Your task to perform on an android device: allow cookies in the chrome app Image 0: 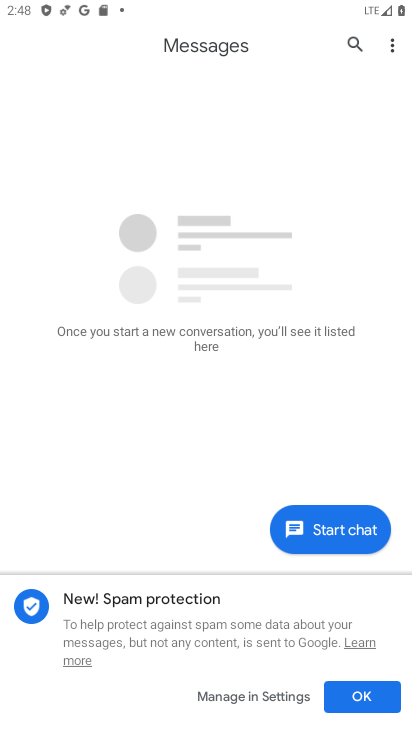
Step 0: press home button
Your task to perform on an android device: allow cookies in the chrome app Image 1: 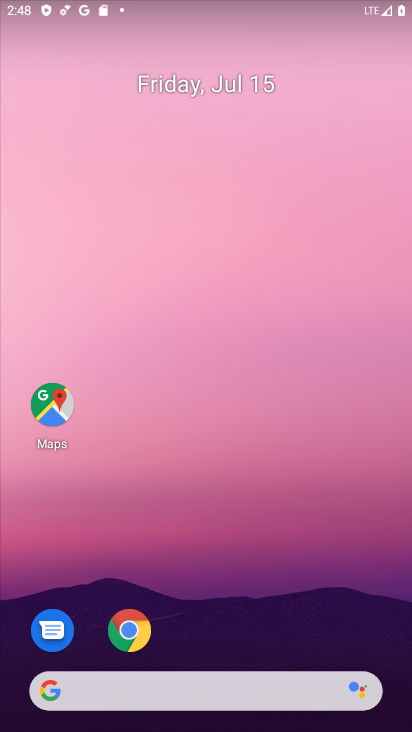
Step 1: click (133, 633)
Your task to perform on an android device: allow cookies in the chrome app Image 2: 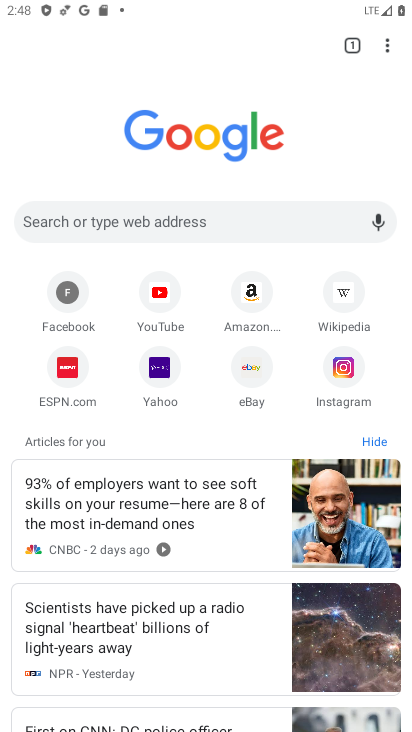
Step 2: drag from (394, 38) to (228, 377)
Your task to perform on an android device: allow cookies in the chrome app Image 3: 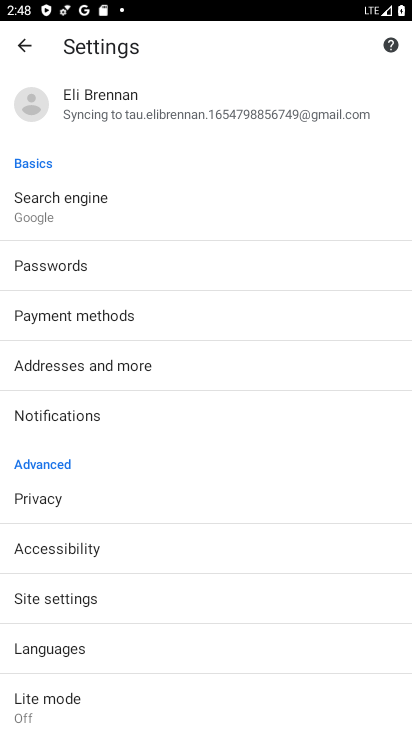
Step 3: click (80, 590)
Your task to perform on an android device: allow cookies in the chrome app Image 4: 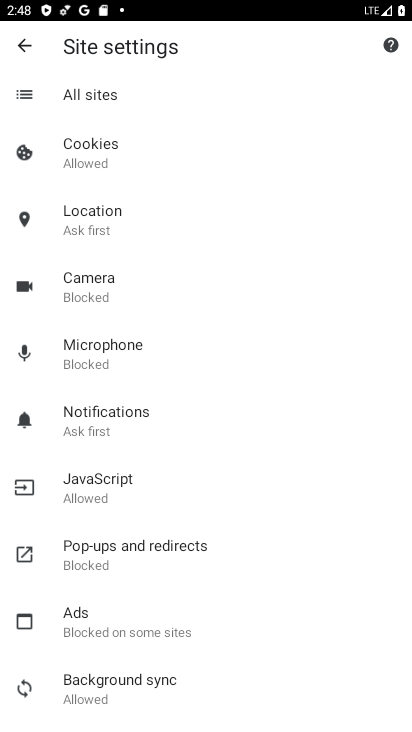
Step 4: click (110, 143)
Your task to perform on an android device: allow cookies in the chrome app Image 5: 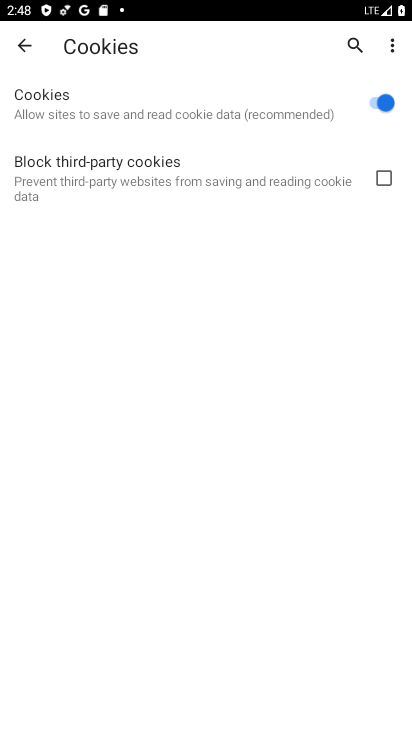
Step 5: task complete